Your task to perform on an android device: see sites visited before in the chrome app Image 0: 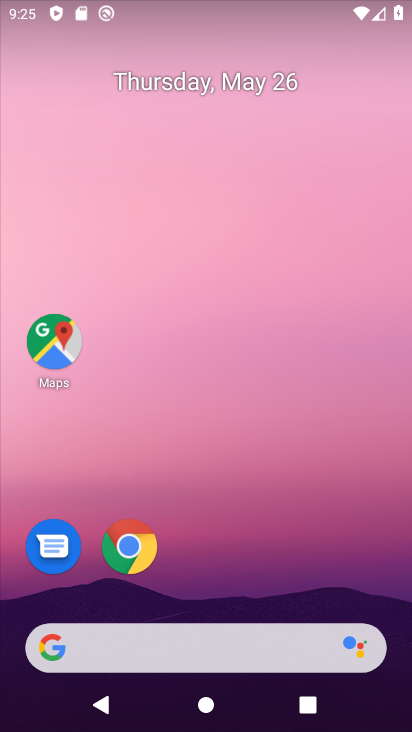
Step 0: drag from (274, 564) to (293, 162)
Your task to perform on an android device: see sites visited before in the chrome app Image 1: 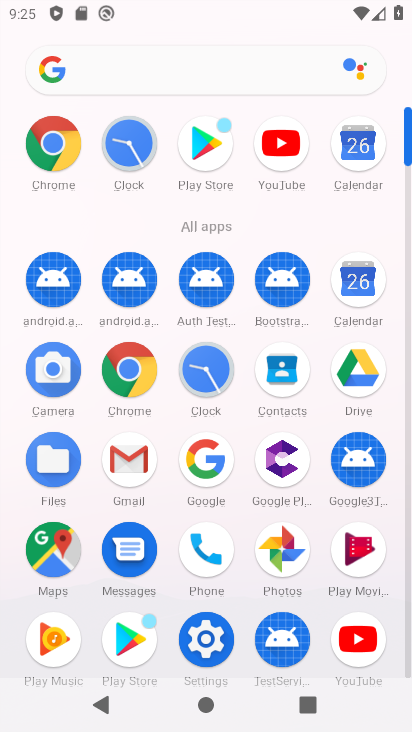
Step 1: click (129, 363)
Your task to perform on an android device: see sites visited before in the chrome app Image 2: 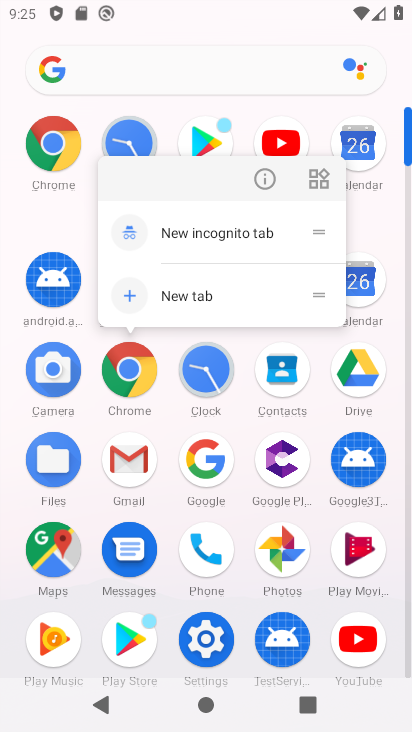
Step 2: click (137, 385)
Your task to perform on an android device: see sites visited before in the chrome app Image 3: 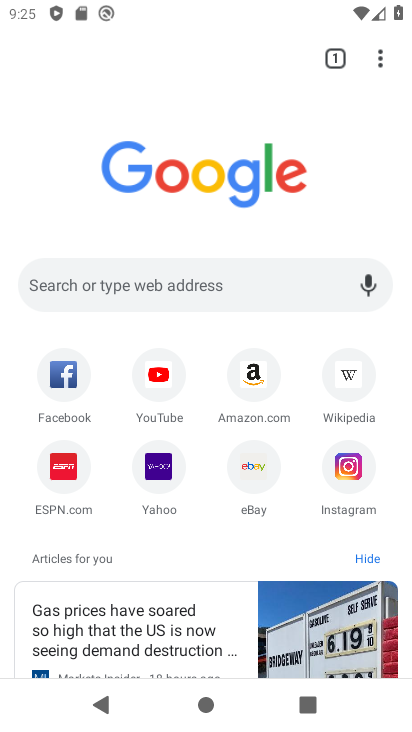
Step 3: task complete